Your task to perform on an android device: check google app version Image 0: 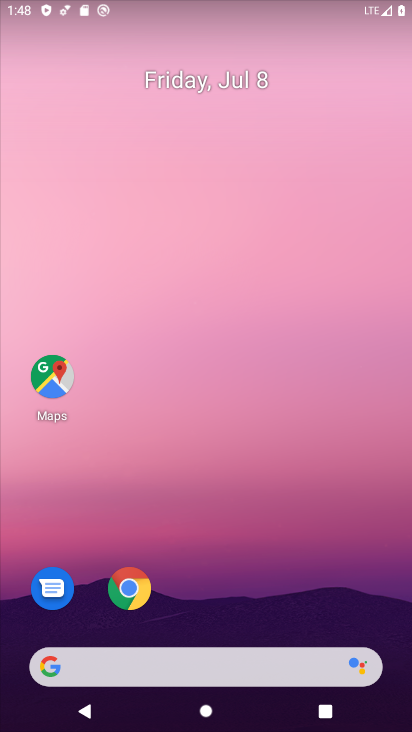
Step 0: press home button
Your task to perform on an android device: check google app version Image 1: 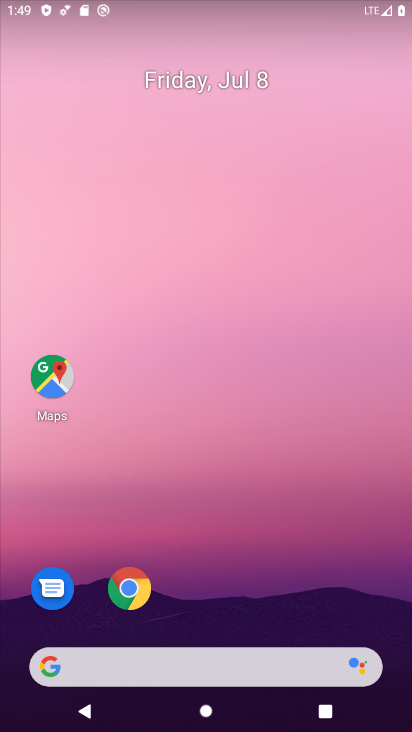
Step 1: drag from (271, 607) to (289, 67)
Your task to perform on an android device: check google app version Image 2: 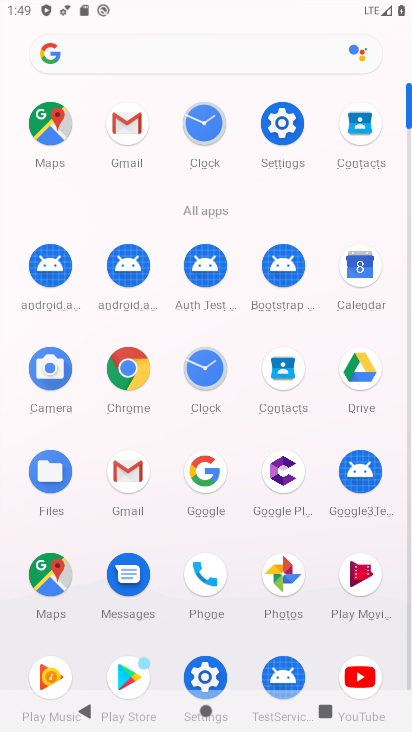
Step 2: click (209, 481)
Your task to perform on an android device: check google app version Image 3: 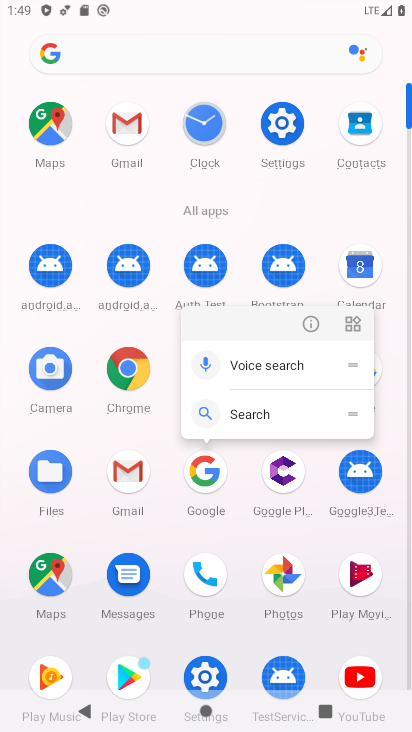
Step 3: click (310, 331)
Your task to perform on an android device: check google app version Image 4: 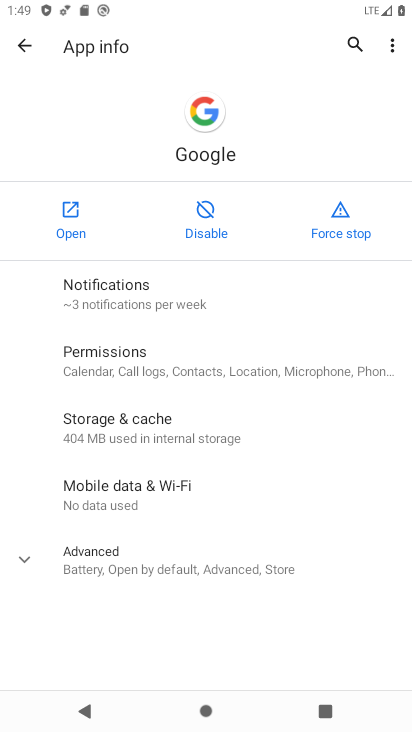
Step 4: click (101, 568)
Your task to perform on an android device: check google app version Image 5: 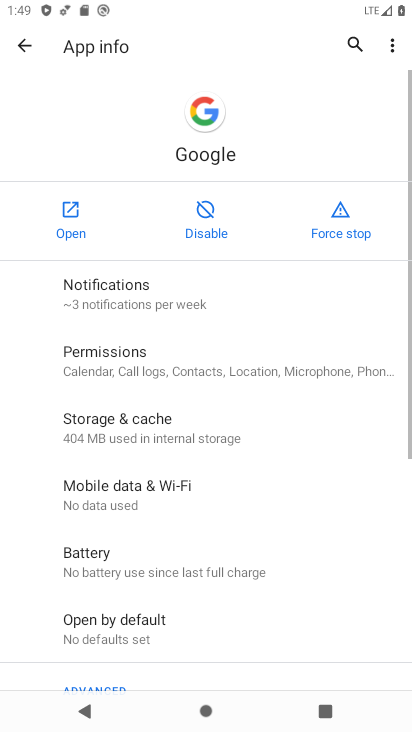
Step 5: task complete